Your task to perform on an android device: Open Chrome and go to the settings page Image 0: 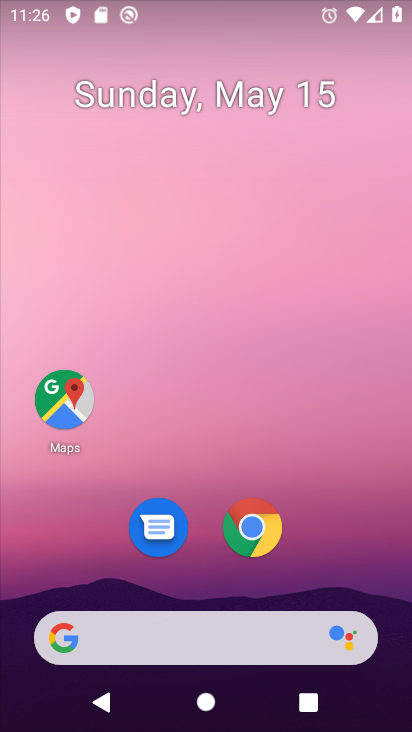
Step 0: click (269, 530)
Your task to perform on an android device: Open Chrome and go to the settings page Image 1: 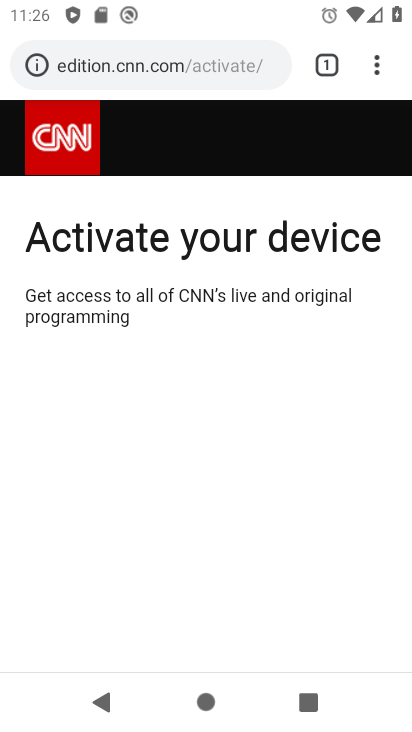
Step 1: click (376, 75)
Your task to perform on an android device: Open Chrome and go to the settings page Image 2: 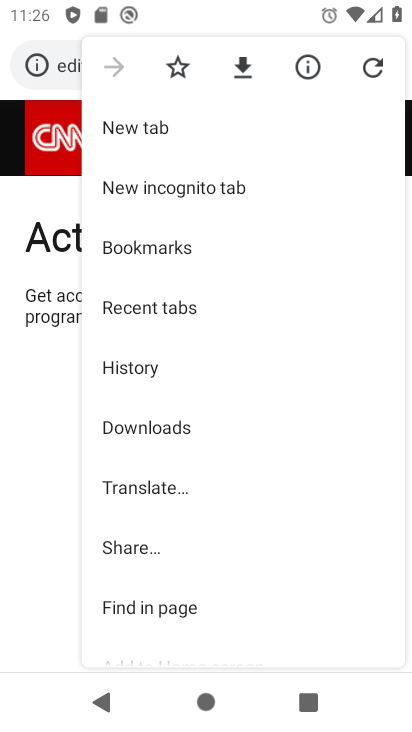
Step 2: drag from (176, 588) to (222, 267)
Your task to perform on an android device: Open Chrome and go to the settings page Image 3: 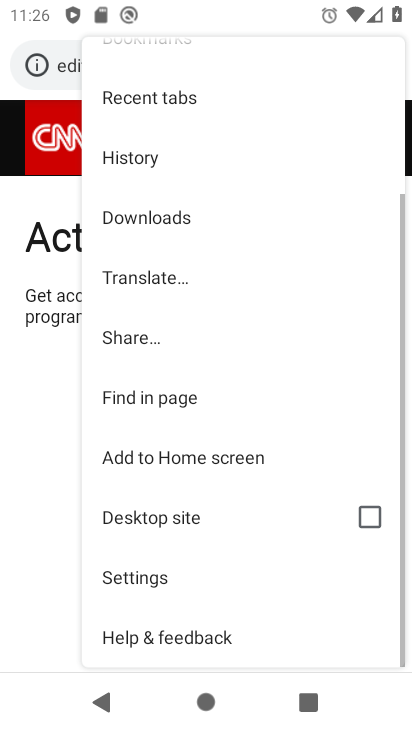
Step 3: click (198, 568)
Your task to perform on an android device: Open Chrome and go to the settings page Image 4: 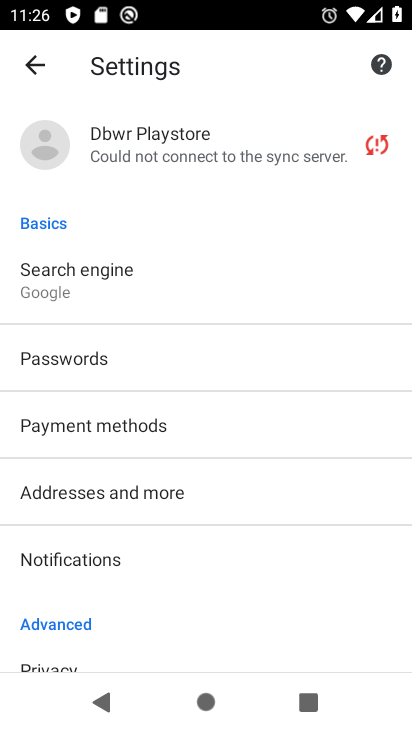
Step 4: task complete